Your task to perform on an android device: move a message to another label in the gmail app Image 0: 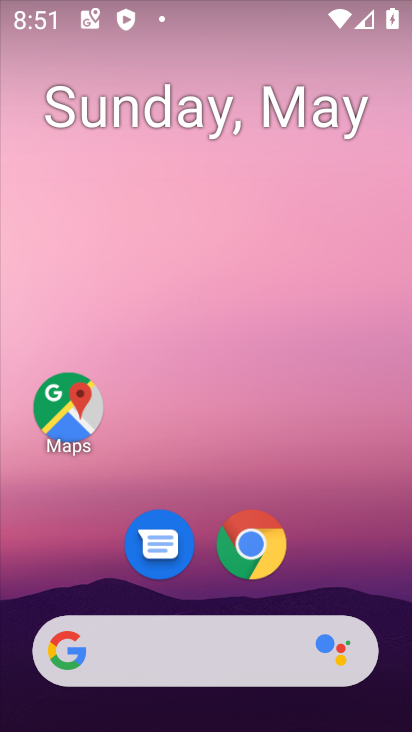
Step 0: drag from (346, 402) to (63, 11)
Your task to perform on an android device: move a message to another label in the gmail app Image 1: 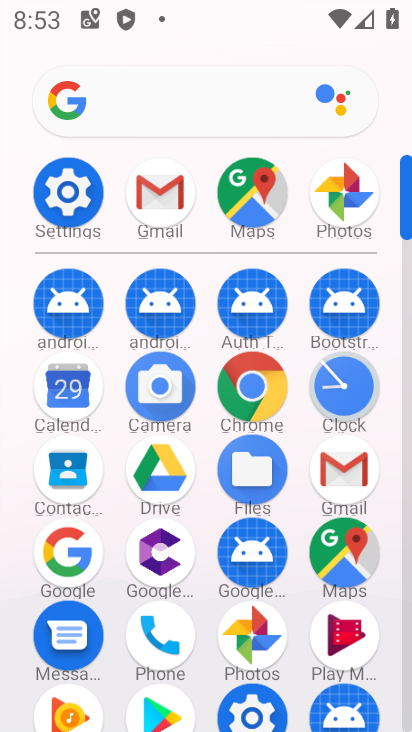
Step 1: click (341, 476)
Your task to perform on an android device: move a message to another label in the gmail app Image 2: 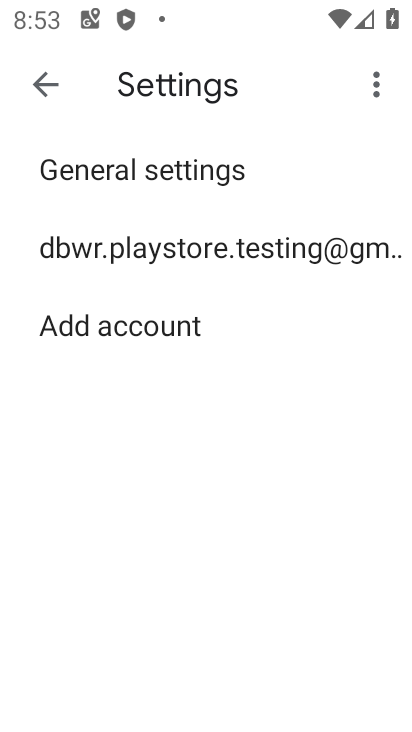
Step 2: click (56, 234)
Your task to perform on an android device: move a message to another label in the gmail app Image 3: 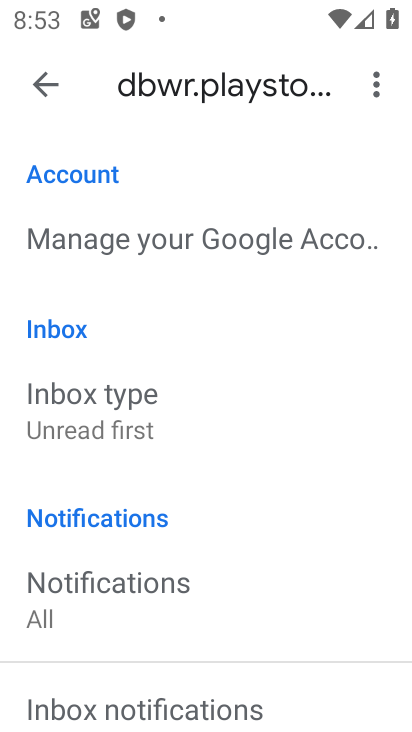
Step 3: click (38, 100)
Your task to perform on an android device: move a message to another label in the gmail app Image 4: 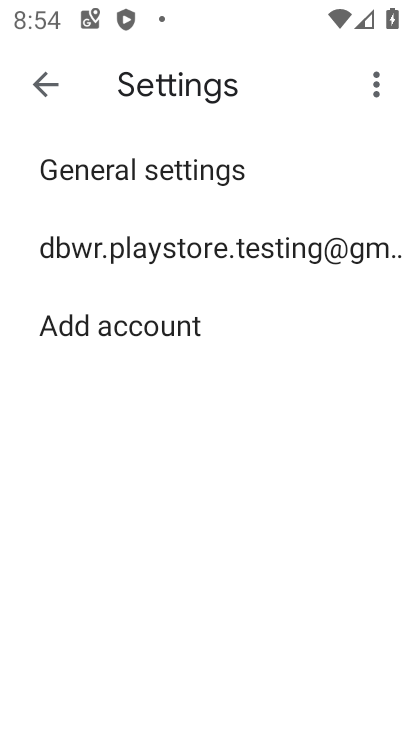
Step 4: click (31, 78)
Your task to perform on an android device: move a message to another label in the gmail app Image 5: 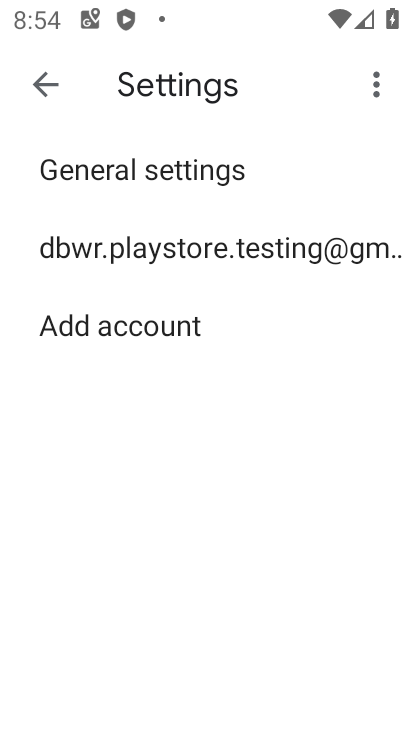
Step 5: click (46, 24)
Your task to perform on an android device: move a message to another label in the gmail app Image 6: 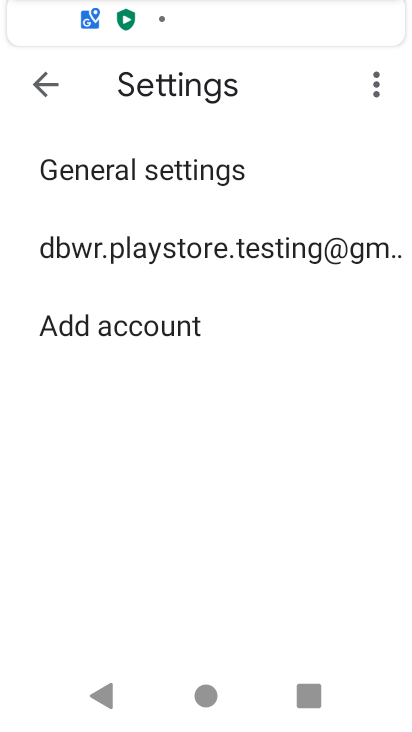
Step 6: click (21, 83)
Your task to perform on an android device: move a message to another label in the gmail app Image 7: 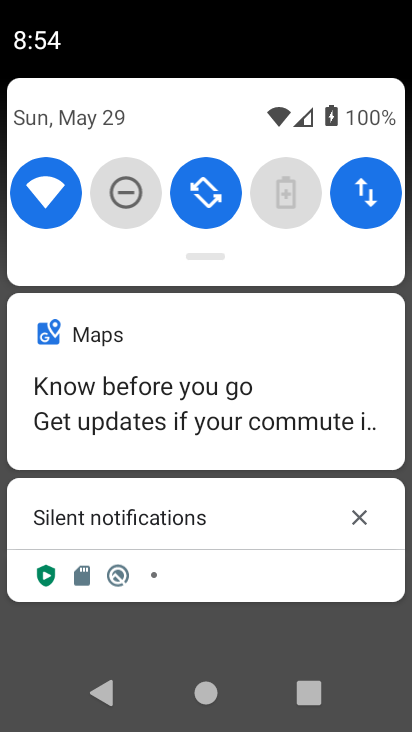
Step 7: drag from (133, 628) to (205, 120)
Your task to perform on an android device: move a message to another label in the gmail app Image 8: 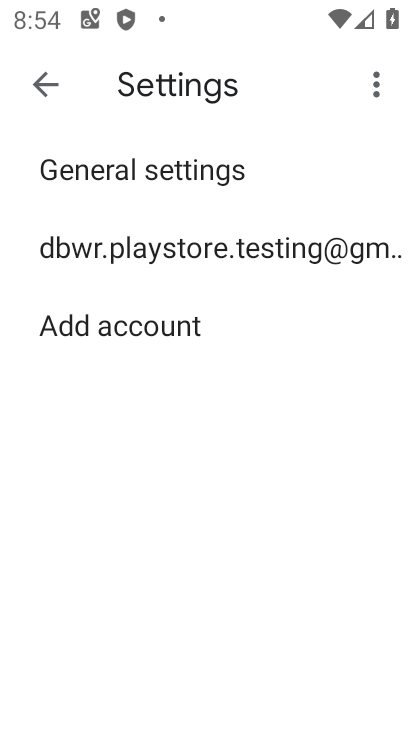
Step 8: click (59, 86)
Your task to perform on an android device: move a message to another label in the gmail app Image 9: 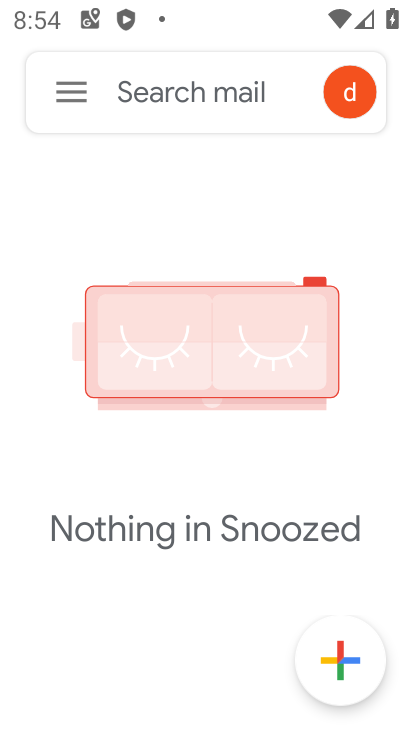
Step 9: click (69, 109)
Your task to perform on an android device: move a message to another label in the gmail app Image 10: 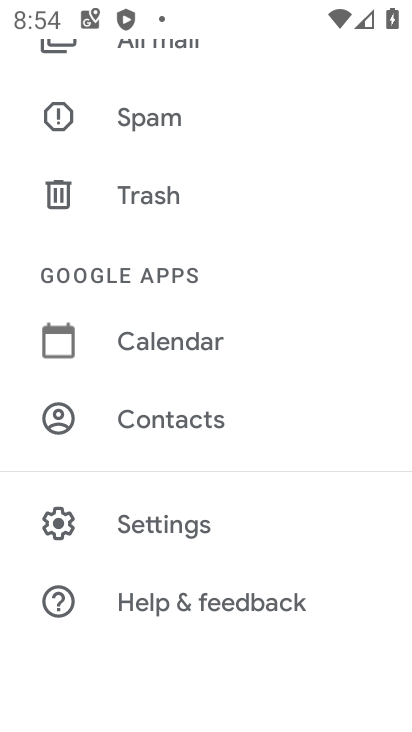
Step 10: drag from (162, 261) to (191, 621)
Your task to perform on an android device: move a message to another label in the gmail app Image 11: 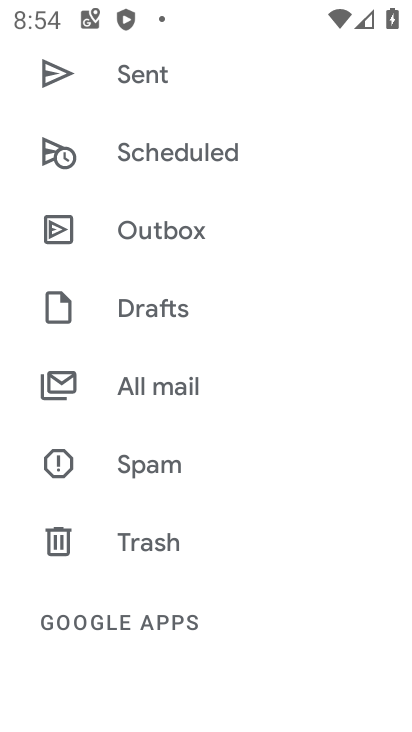
Step 11: click (161, 391)
Your task to perform on an android device: move a message to another label in the gmail app Image 12: 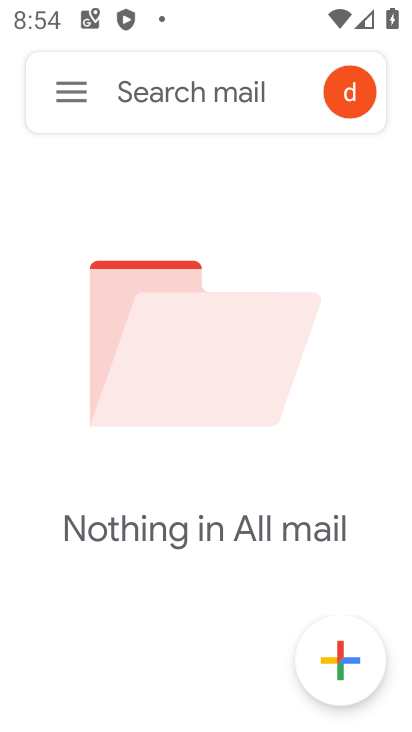
Step 12: task complete